Your task to perform on an android device: turn on the 12-hour format for clock Image 0: 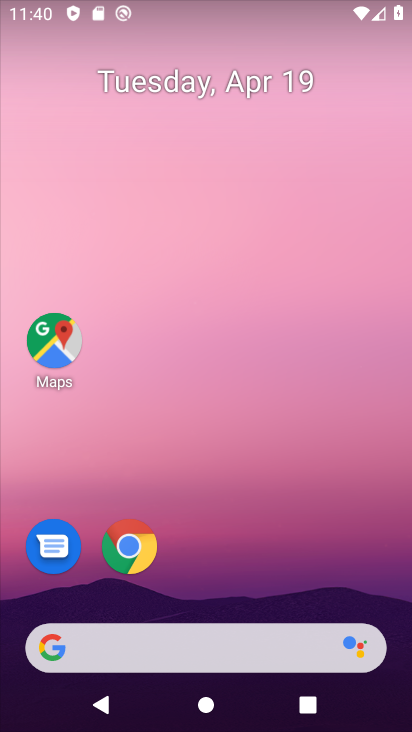
Step 0: drag from (260, 162) to (283, 37)
Your task to perform on an android device: turn on the 12-hour format for clock Image 1: 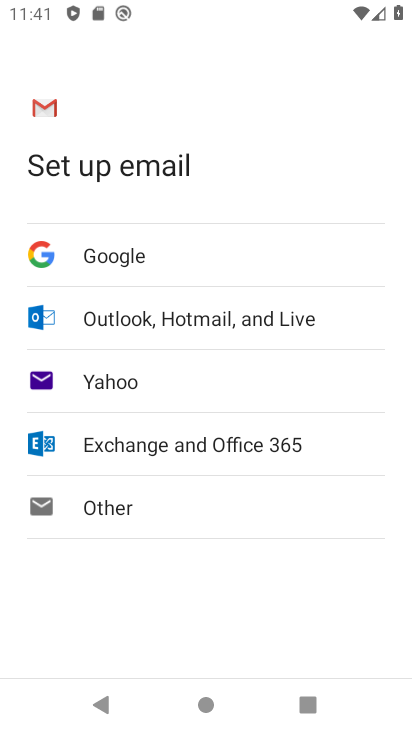
Step 1: press home button
Your task to perform on an android device: turn on the 12-hour format for clock Image 2: 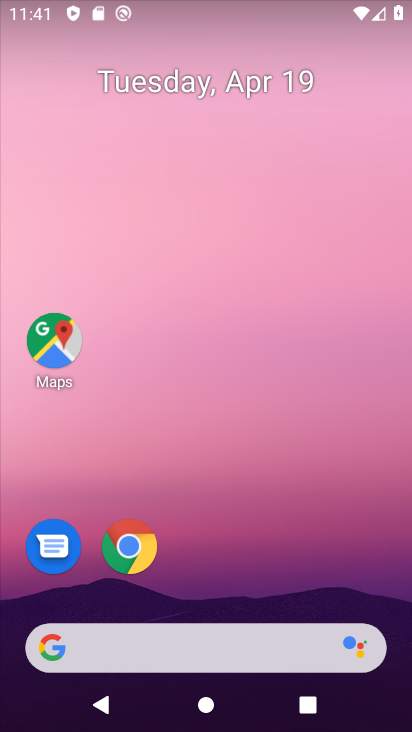
Step 2: drag from (264, 717) to (293, 5)
Your task to perform on an android device: turn on the 12-hour format for clock Image 3: 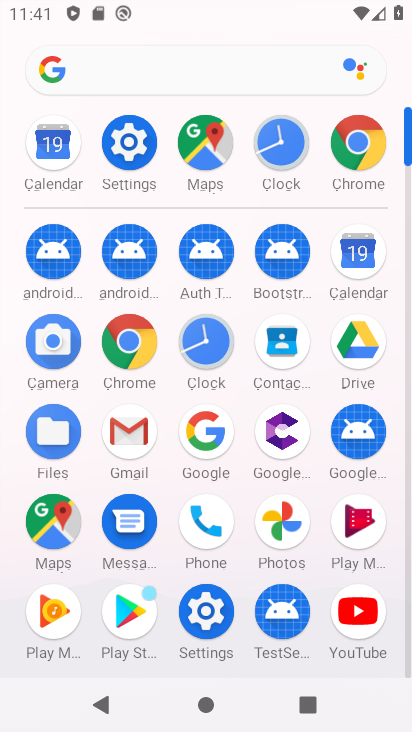
Step 3: click (296, 140)
Your task to perform on an android device: turn on the 12-hour format for clock Image 4: 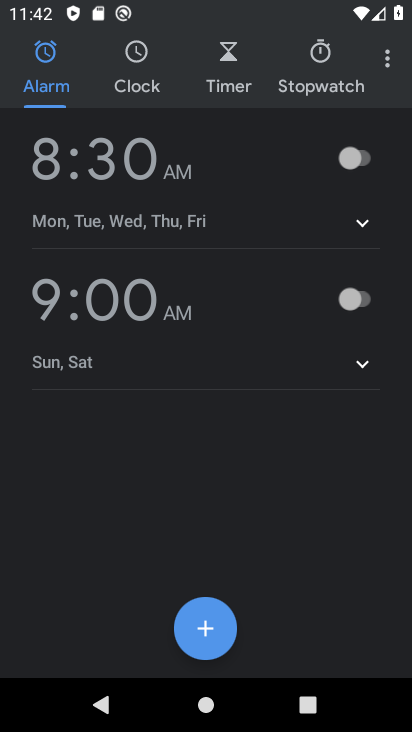
Step 4: click (395, 56)
Your task to perform on an android device: turn on the 12-hour format for clock Image 5: 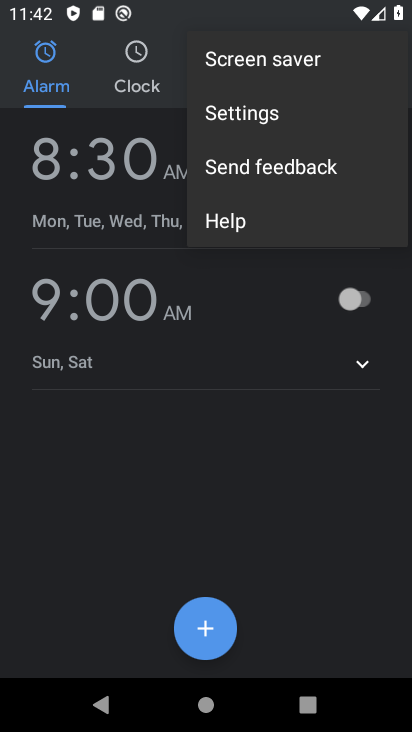
Step 5: click (283, 131)
Your task to perform on an android device: turn on the 12-hour format for clock Image 6: 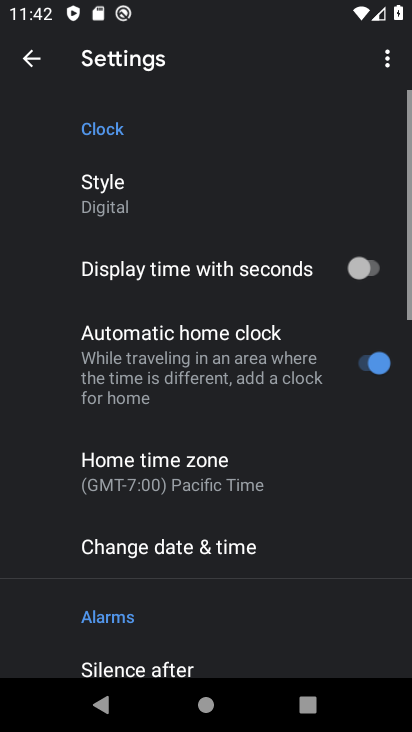
Step 6: drag from (323, 606) to (341, 27)
Your task to perform on an android device: turn on the 12-hour format for clock Image 7: 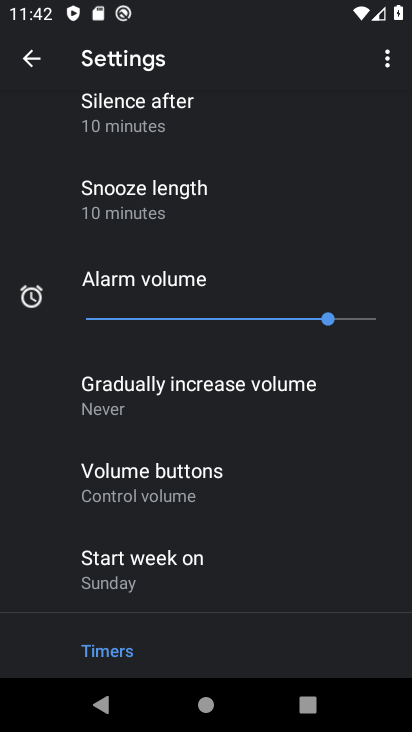
Step 7: drag from (320, 154) to (328, 660)
Your task to perform on an android device: turn on the 12-hour format for clock Image 8: 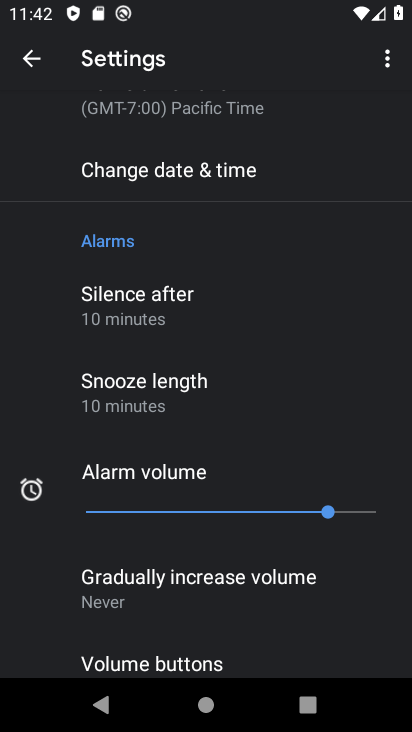
Step 8: click (262, 184)
Your task to perform on an android device: turn on the 12-hour format for clock Image 9: 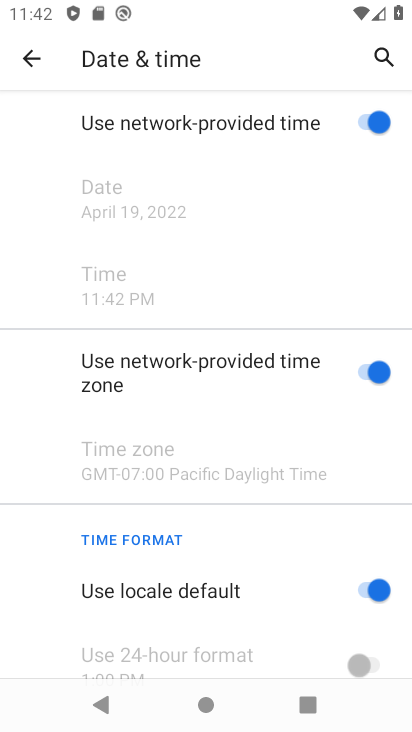
Step 9: task complete